Your task to perform on an android device: open sync settings in chrome Image 0: 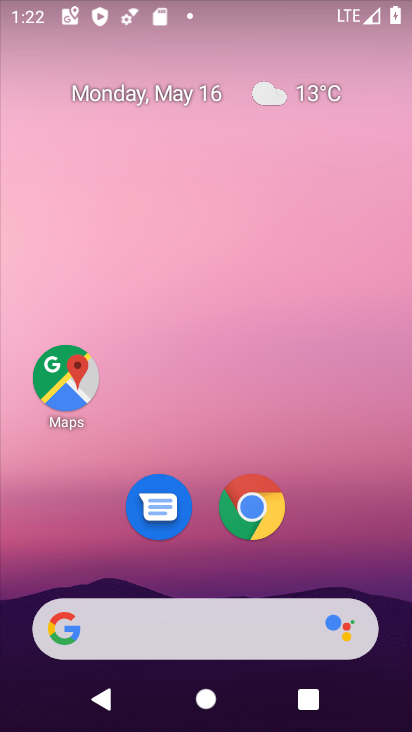
Step 0: click (248, 506)
Your task to perform on an android device: open sync settings in chrome Image 1: 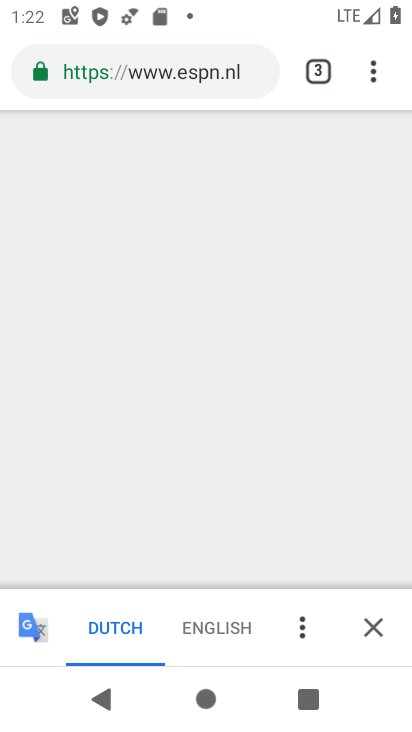
Step 1: click (379, 63)
Your task to perform on an android device: open sync settings in chrome Image 2: 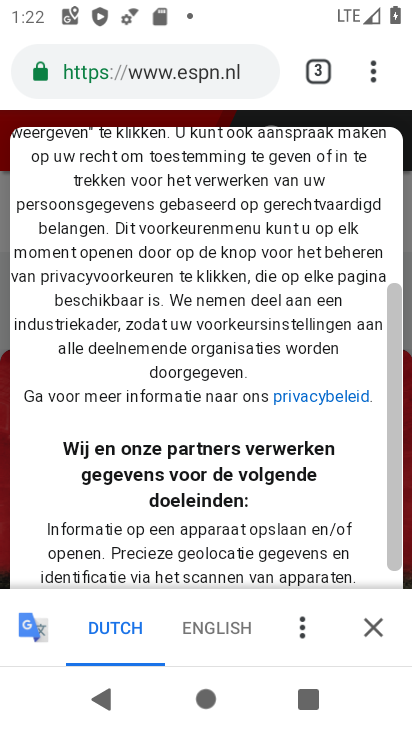
Step 2: press home button
Your task to perform on an android device: open sync settings in chrome Image 3: 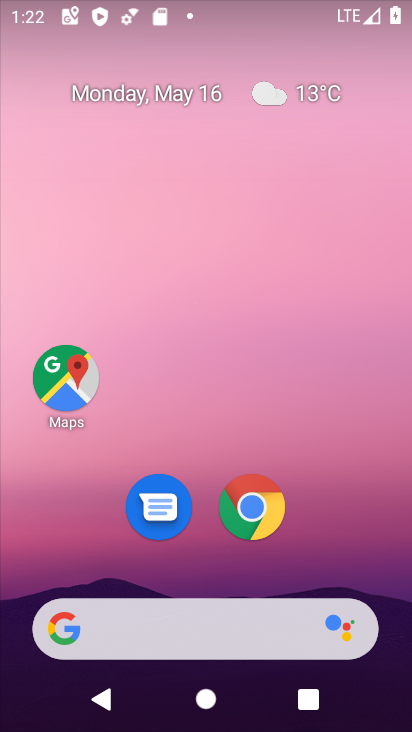
Step 3: click (254, 500)
Your task to perform on an android device: open sync settings in chrome Image 4: 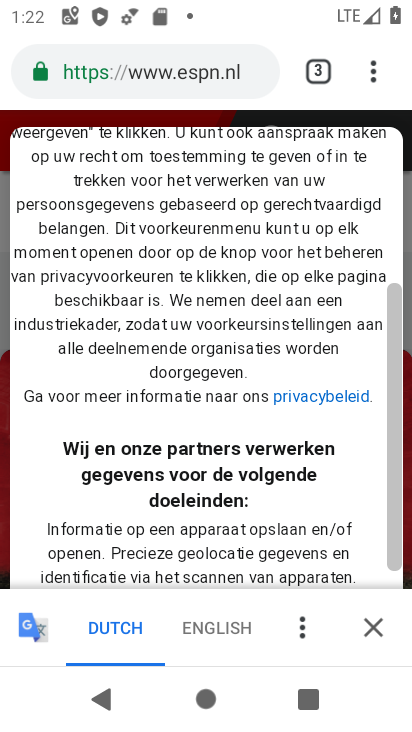
Step 4: click (319, 72)
Your task to perform on an android device: open sync settings in chrome Image 5: 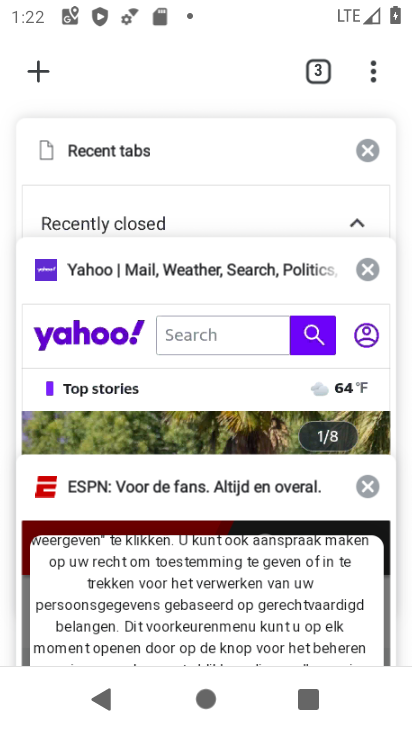
Step 5: click (371, 74)
Your task to perform on an android device: open sync settings in chrome Image 6: 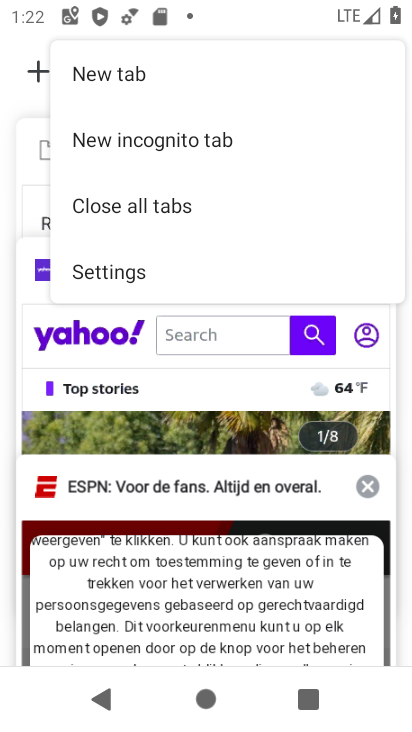
Step 6: press home button
Your task to perform on an android device: open sync settings in chrome Image 7: 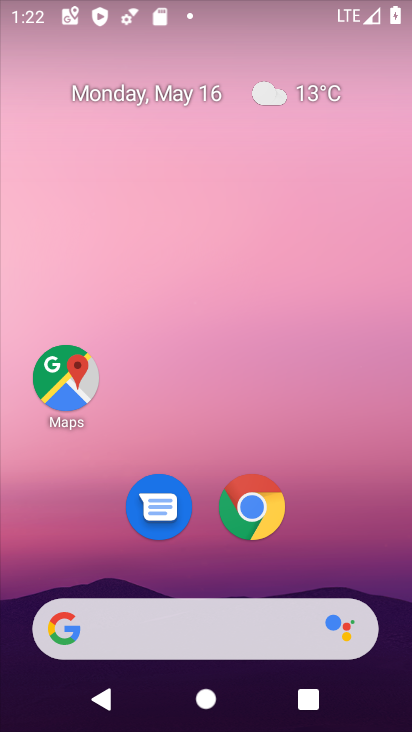
Step 7: click (272, 497)
Your task to perform on an android device: open sync settings in chrome Image 8: 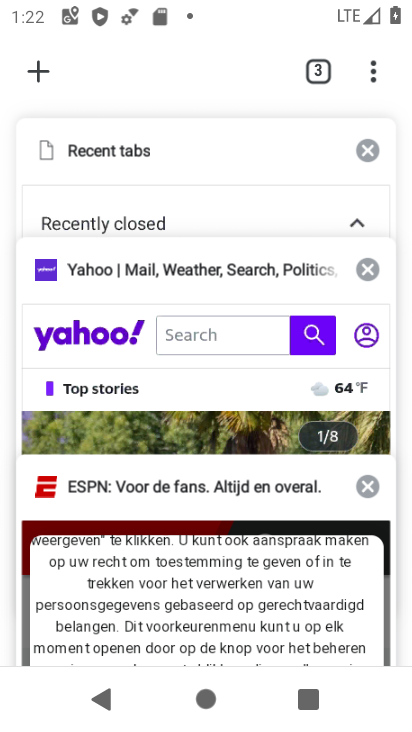
Step 8: click (147, 272)
Your task to perform on an android device: open sync settings in chrome Image 9: 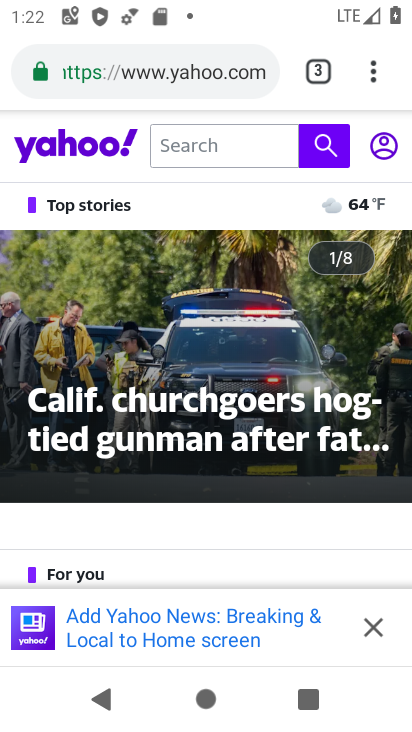
Step 9: click (370, 65)
Your task to perform on an android device: open sync settings in chrome Image 10: 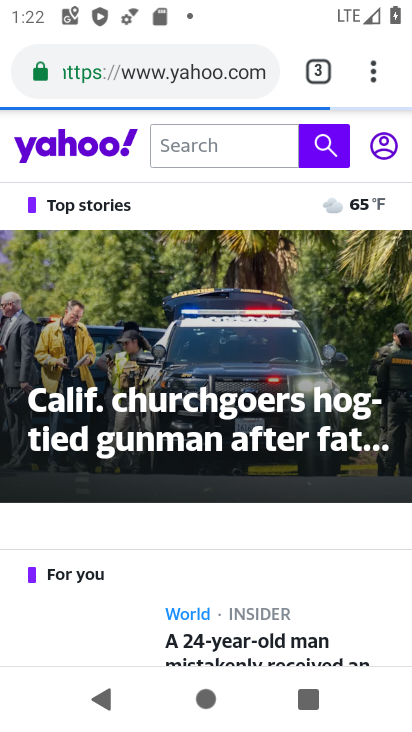
Step 10: click (369, 72)
Your task to perform on an android device: open sync settings in chrome Image 11: 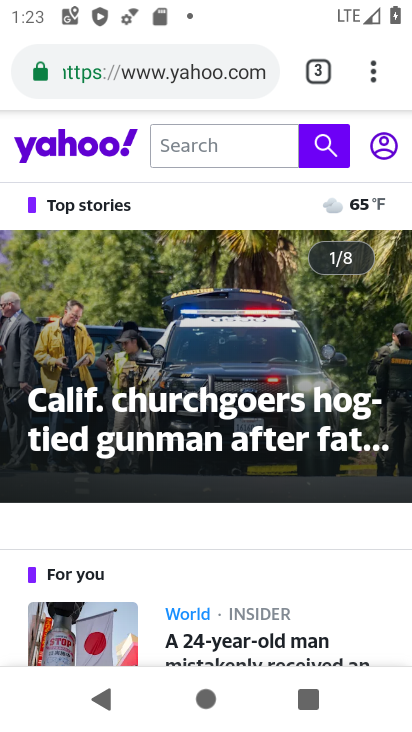
Step 11: click (370, 71)
Your task to perform on an android device: open sync settings in chrome Image 12: 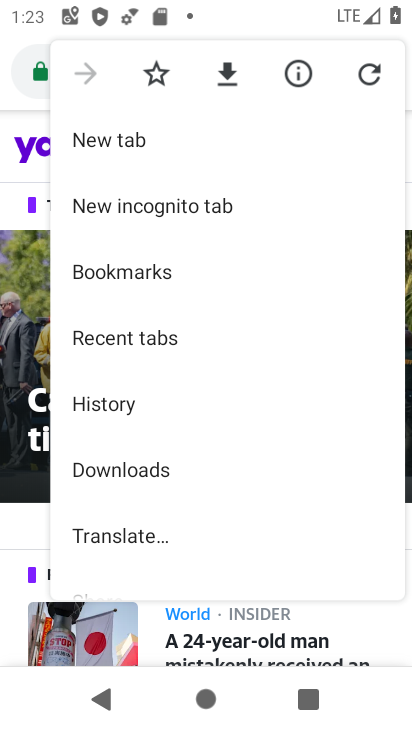
Step 12: drag from (226, 487) to (226, 132)
Your task to perform on an android device: open sync settings in chrome Image 13: 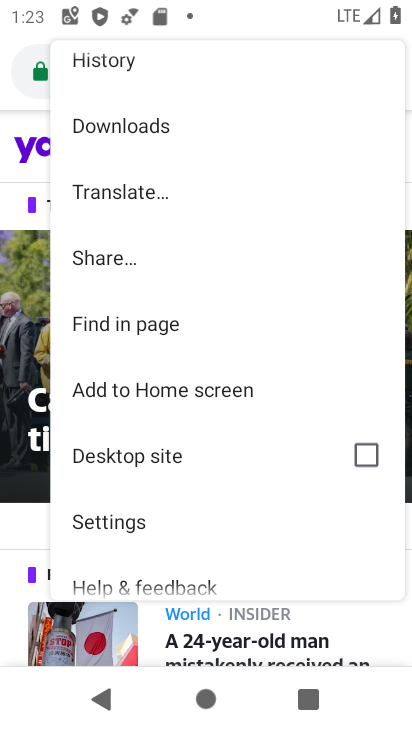
Step 13: click (153, 527)
Your task to perform on an android device: open sync settings in chrome Image 14: 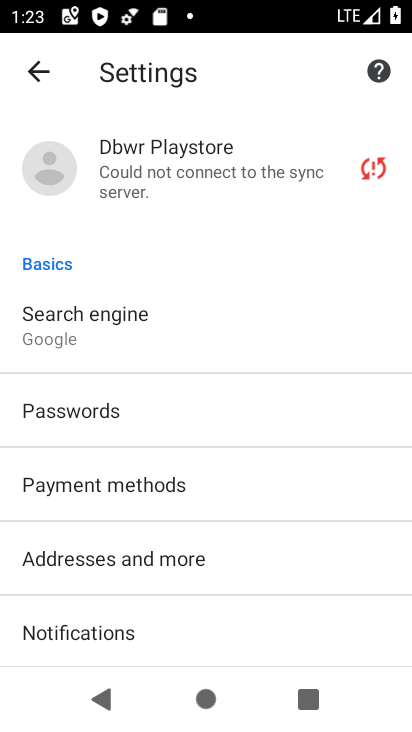
Step 14: drag from (202, 550) to (264, 188)
Your task to perform on an android device: open sync settings in chrome Image 15: 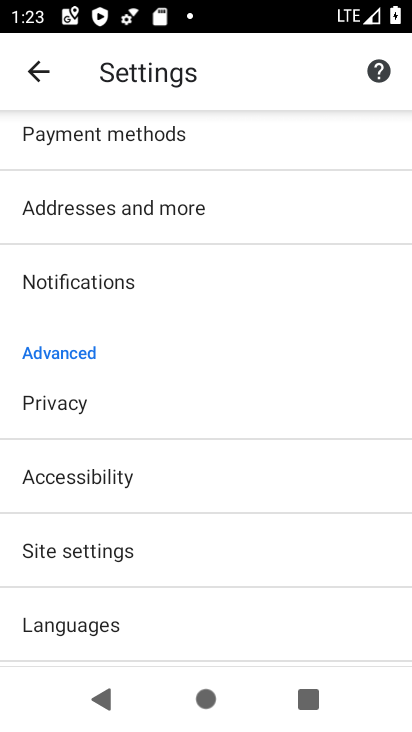
Step 15: click (175, 535)
Your task to perform on an android device: open sync settings in chrome Image 16: 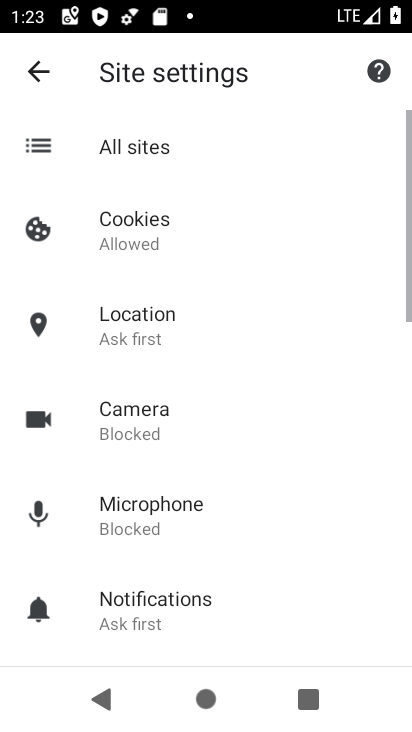
Step 16: drag from (257, 583) to (278, 195)
Your task to perform on an android device: open sync settings in chrome Image 17: 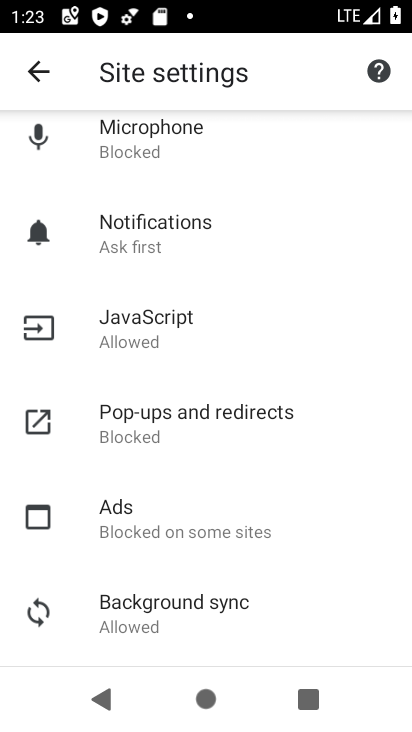
Step 17: click (219, 610)
Your task to perform on an android device: open sync settings in chrome Image 18: 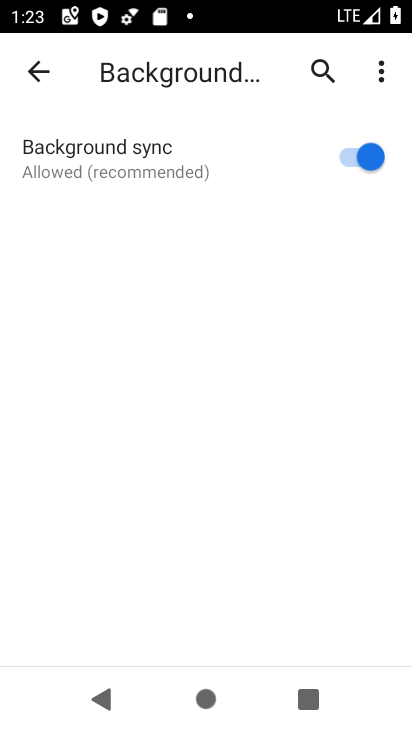
Step 18: task complete